Your task to perform on an android device: change notifications settings Image 0: 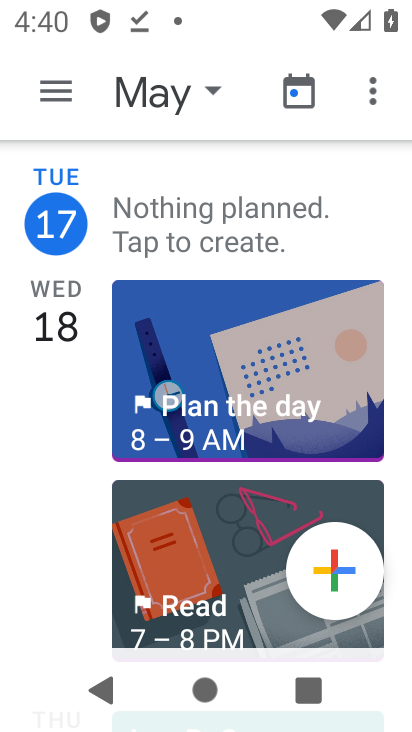
Step 0: press home button
Your task to perform on an android device: change notifications settings Image 1: 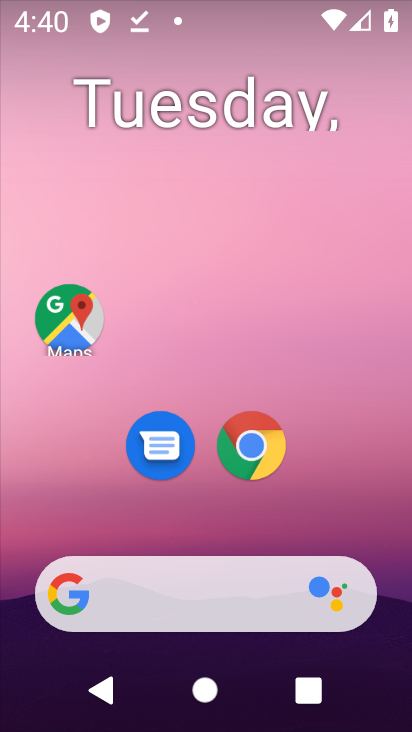
Step 1: drag from (329, 386) to (384, 221)
Your task to perform on an android device: change notifications settings Image 2: 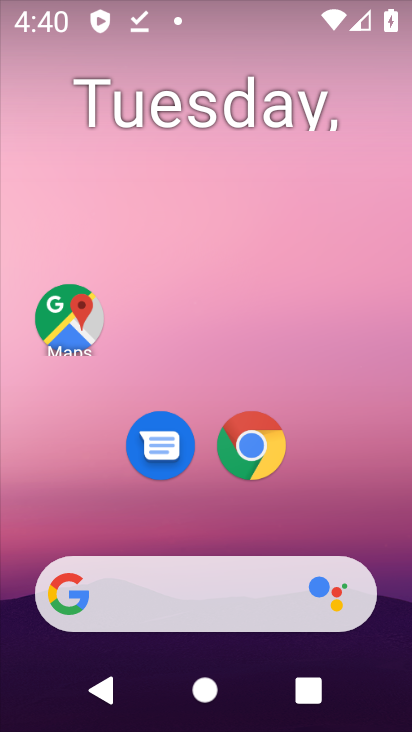
Step 2: drag from (328, 472) to (368, 243)
Your task to perform on an android device: change notifications settings Image 3: 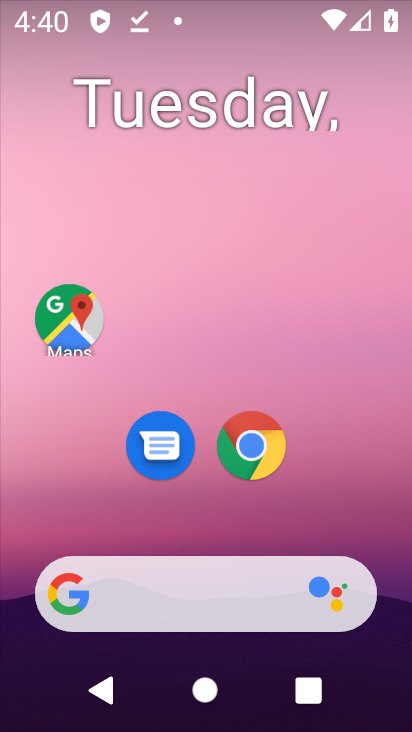
Step 3: drag from (324, 403) to (383, 31)
Your task to perform on an android device: change notifications settings Image 4: 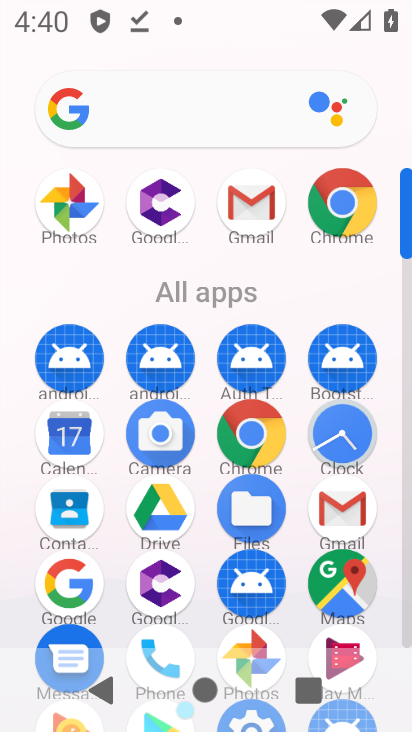
Step 4: drag from (202, 602) to (269, 200)
Your task to perform on an android device: change notifications settings Image 5: 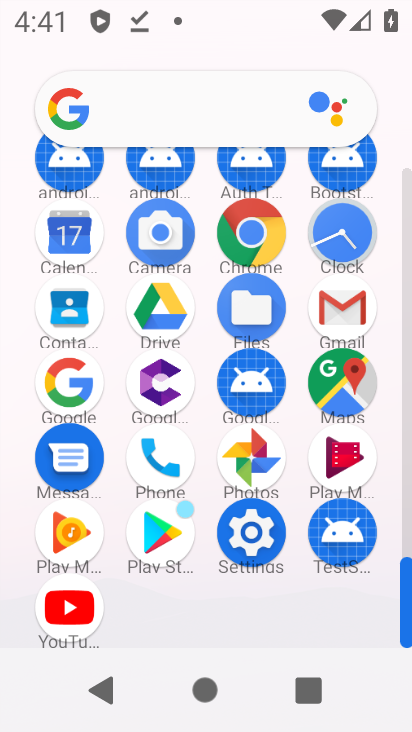
Step 5: click (255, 543)
Your task to perform on an android device: change notifications settings Image 6: 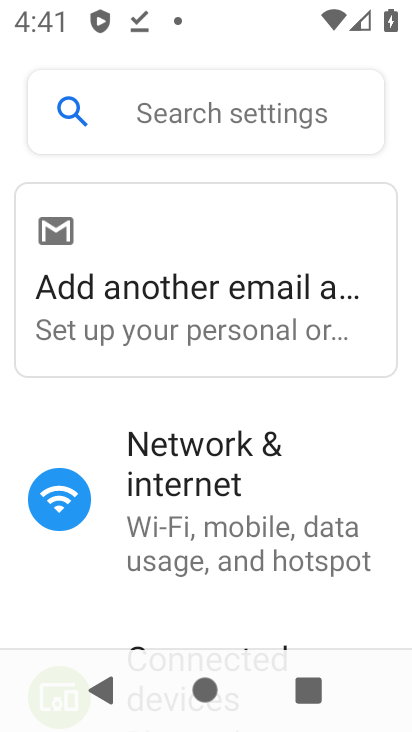
Step 6: drag from (269, 586) to (291, 244)
Your task to perform on an android device: change notifications settings Image 7: 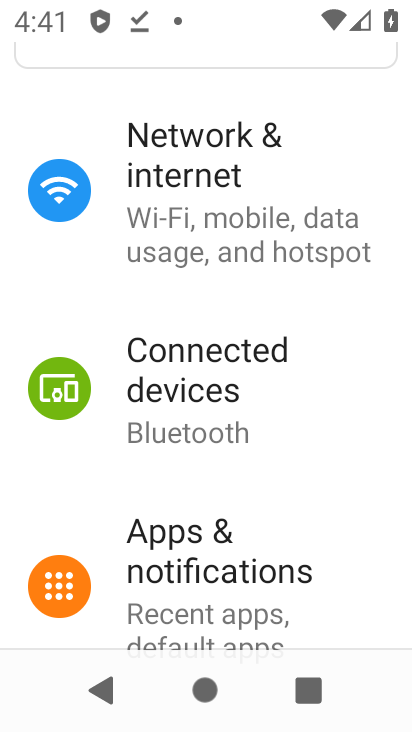
Step 7: click (240, 611)
Your task to perform on an android device: change notifications settings Image 8: 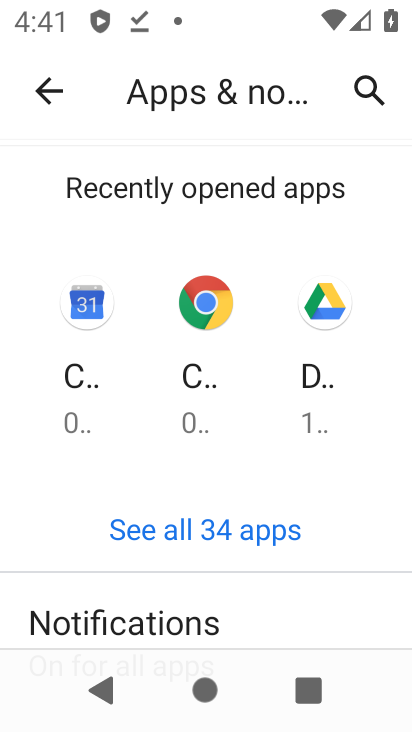
Step 8: drag from (165, 602) to (191, 397)
Your task to perform on an android device: change notifications settings Image 9: 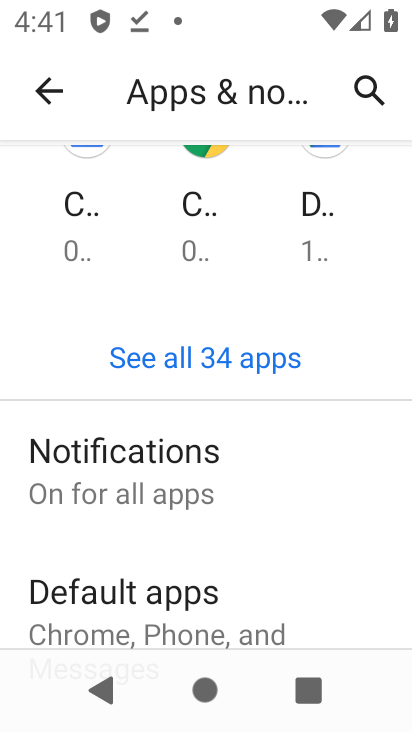
Step 9: click (174, 486)
Your task to perform on an android device: change notifications settings Image 10: 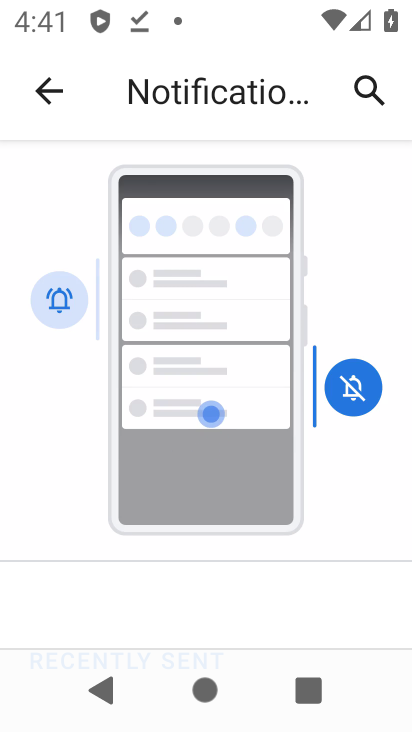
Step 10: drag from (262, 571) to (281, 232)
Your task to perform on an android device: change notifications settings Image 11: 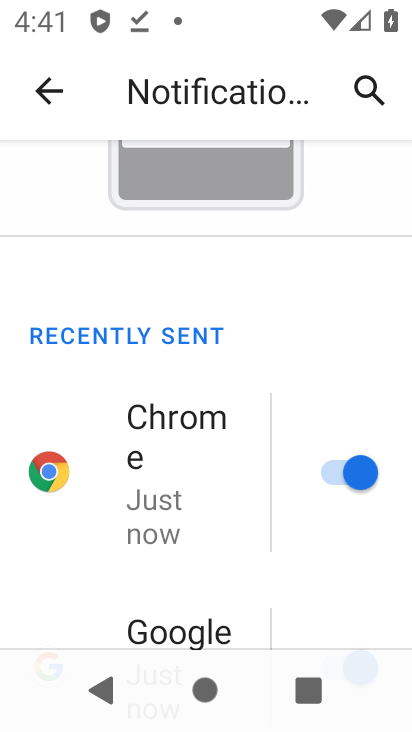
Step 11: click (348, 474)
Your task to perform on an android device: change notifications settings Image 12: 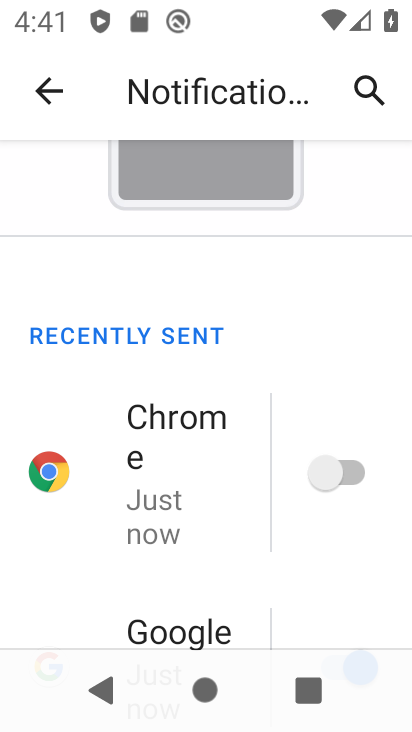
Step 12: task complete